Your task to perform on an android device: Go to settings Image 0: 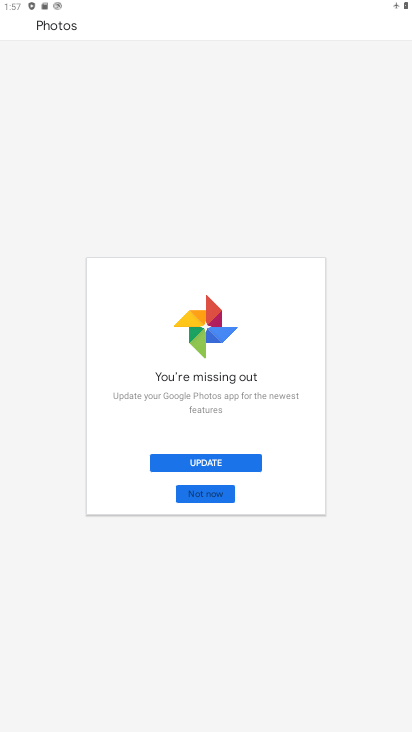
Step 0: press home button
Your task to perform on an android device: Go to settings Image 1: 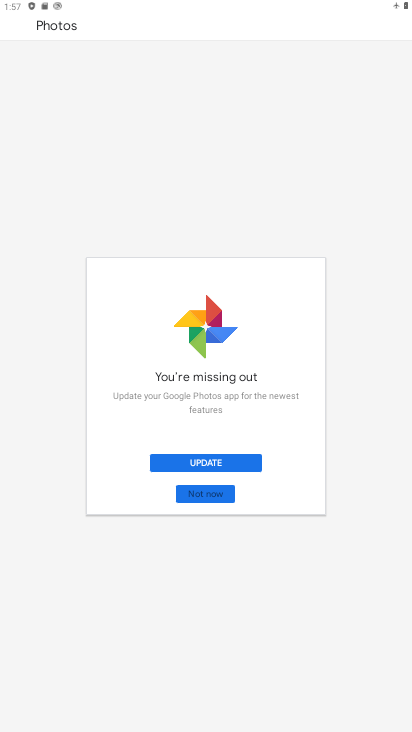
Step 1: press home button
Your task to perform on an android device: Go to settings Image 2: 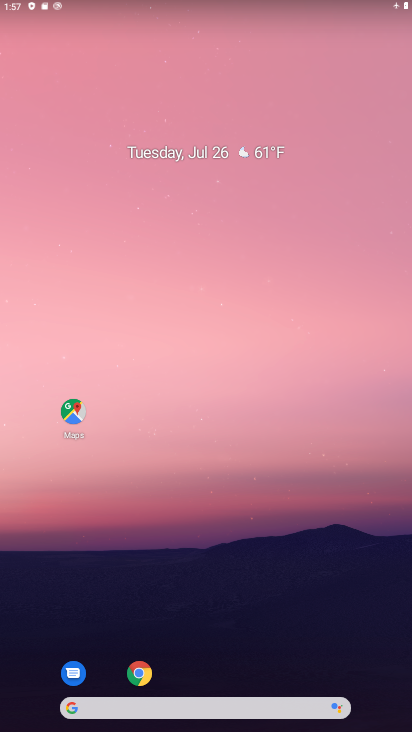
Step 2: drag from (229, 660) to (321, 3)
Your task to perform on an android device: Go to settings Image 3: 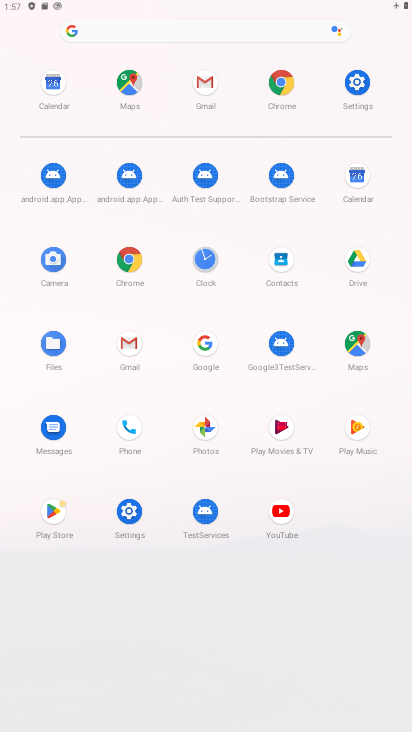
Step 3: click (357, 82)
Your task to perform on an android device: Go to settings Image 4: 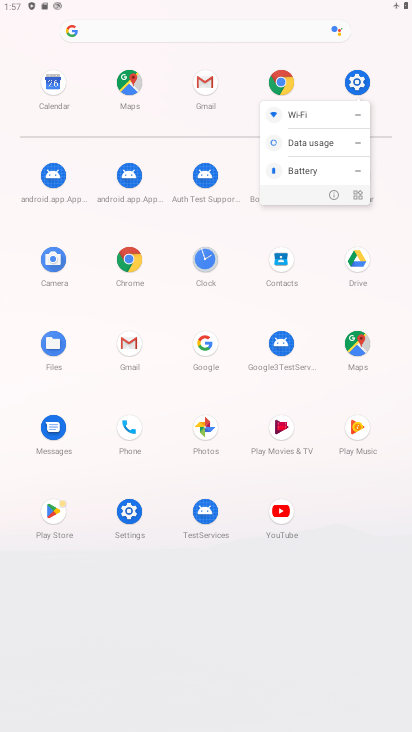
Step 4: click (336, 188)
Your task to perform on an android device: Go to settings Image 5: 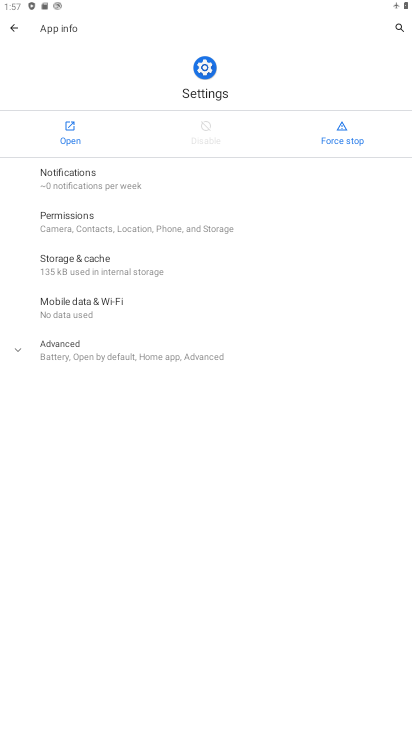
Step 5: click (73, 129)
Your task to perform on an android device: Go to settings Image 6: 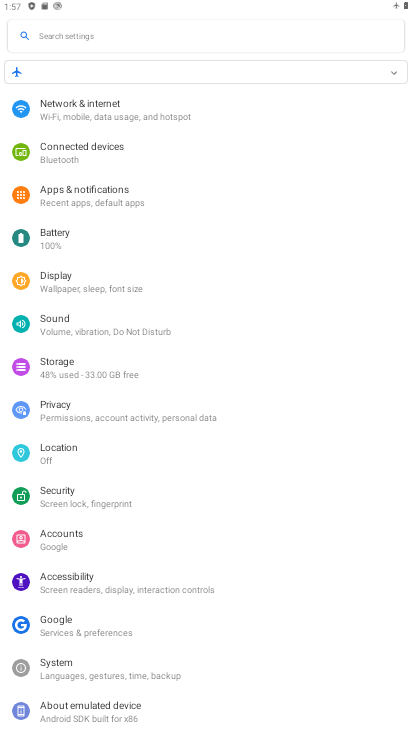
Step 6: task complete